Your task to perform on an android device: empty trash in google photos Image 0: 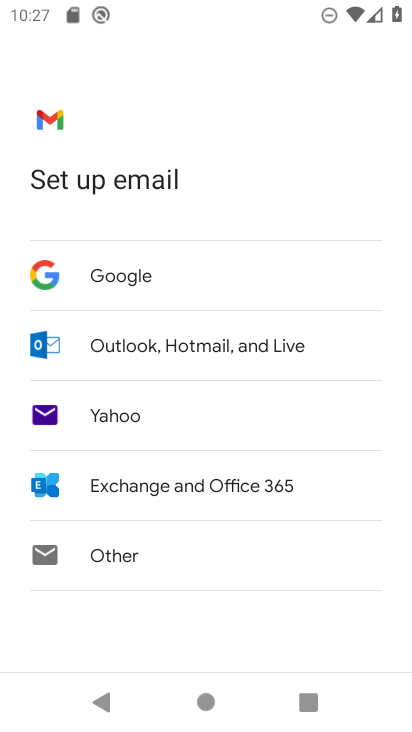
Step 0: press home button
Your task to perform on an android device: empty trash in google photos Image 1: 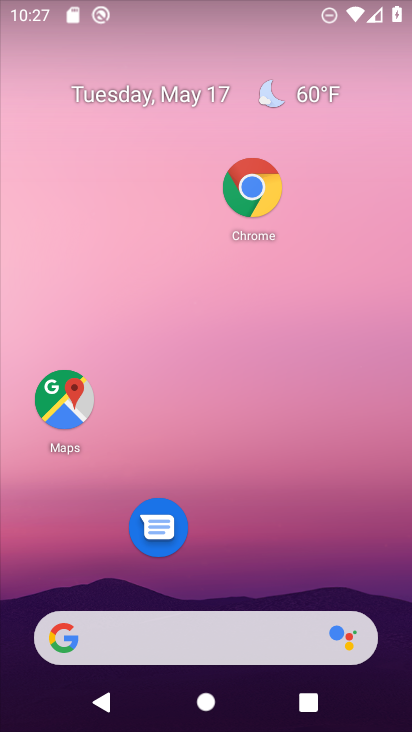
Step 1: drag from (349, 555) to (327, 91)
Your task to perform on an android device: empty trash in google photos Image 2: 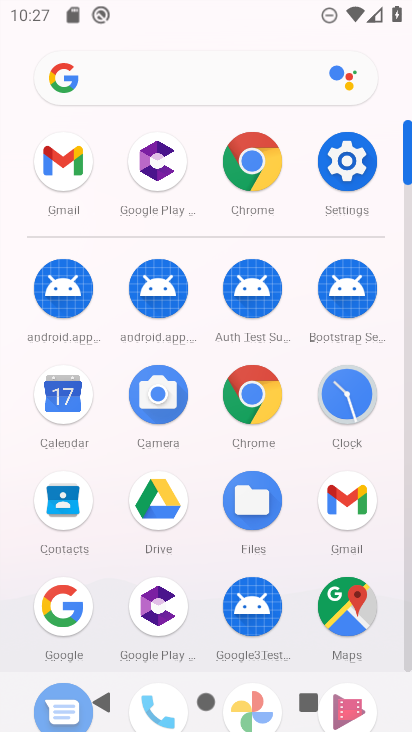
Step 2: click (409, 662)
Your task to perform on an android device: empty trash in google photos Image 3: 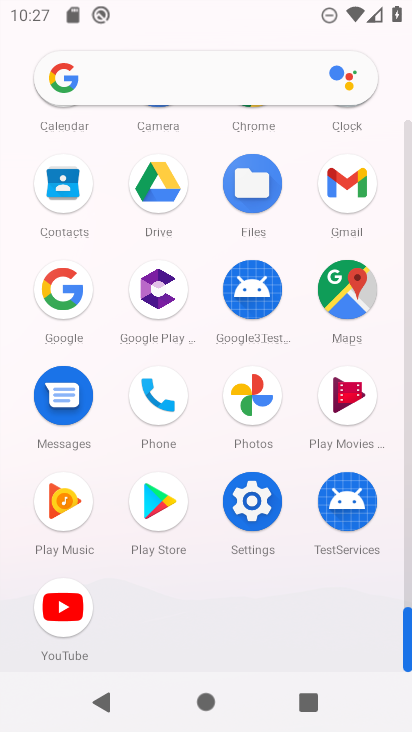
Step 3: click (265, 384)
Your task to perform on an android device: empty trash in google photos Image 4: 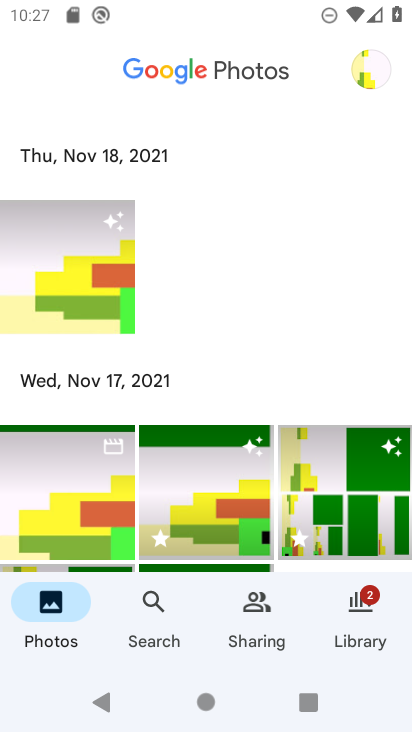
Step 4: click (385, 590)
Your task to perform on an android device: empty trash in google photos Image 5: 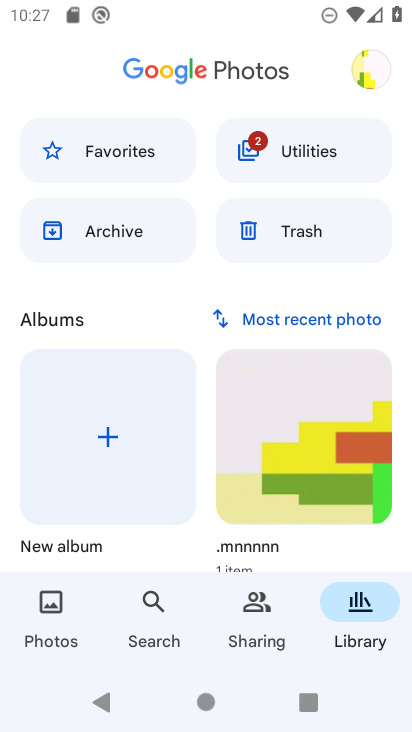
Step 5: click (246, 228)
Your task to perform on an android device: empty trash in google photos Image 6: 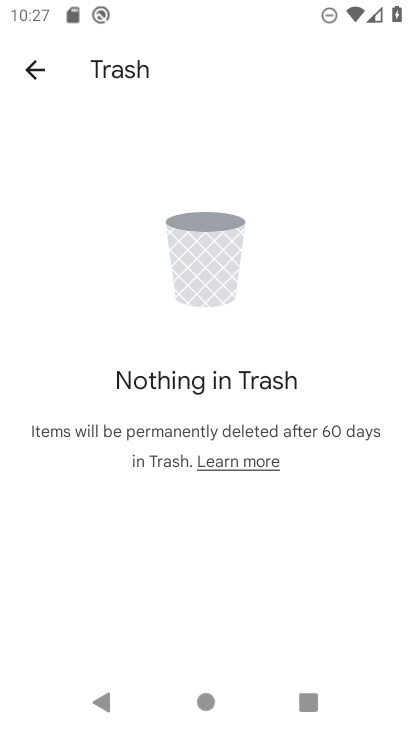
Step 6: task complete